Your task to perform on an android device: manage bookmarks in the chrome app Image 0: 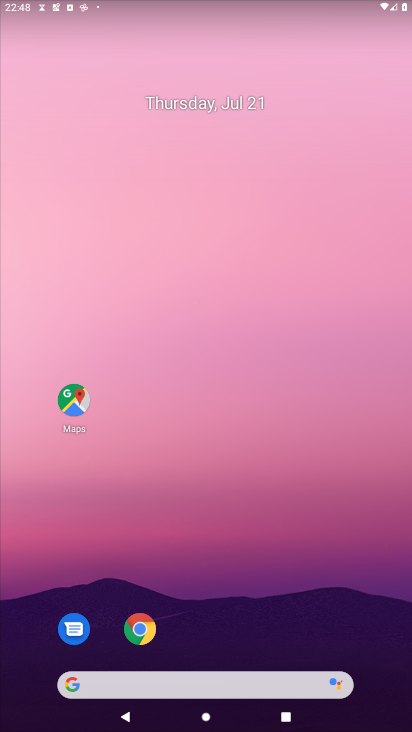
Step 0: drag from (246, 646) to (256, 100)
Your task to perform on an android device: manage bookmarks in the chrome app Image 1: 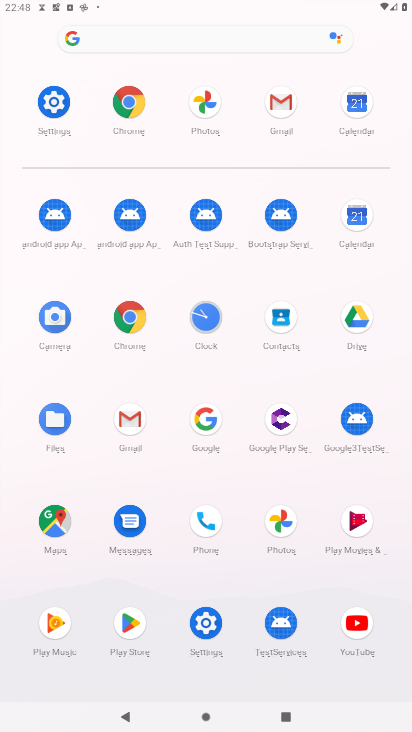
Step 1: click (132, 324)
Your task to perform on an android device: manage bookmarks in the chrome app Image 2: 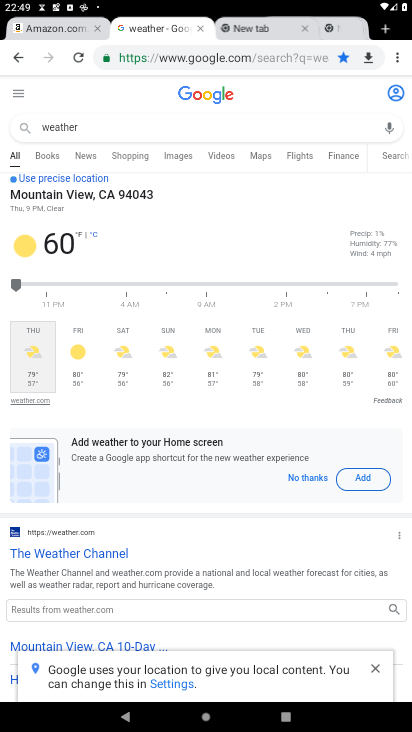
Step 2: click (398, 57)
Your task to perform on an android device: manage bookmarks in the chrome app Image 3: 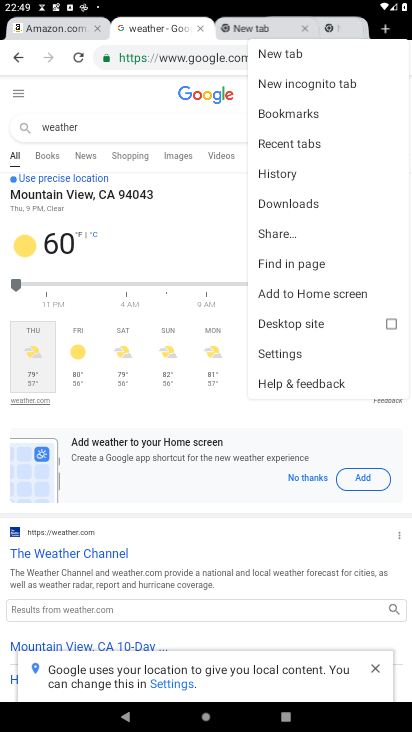
Step 3: click (317, 118)
Your task to perform on an android device: manage bookmarks in the chrome app Image 4: 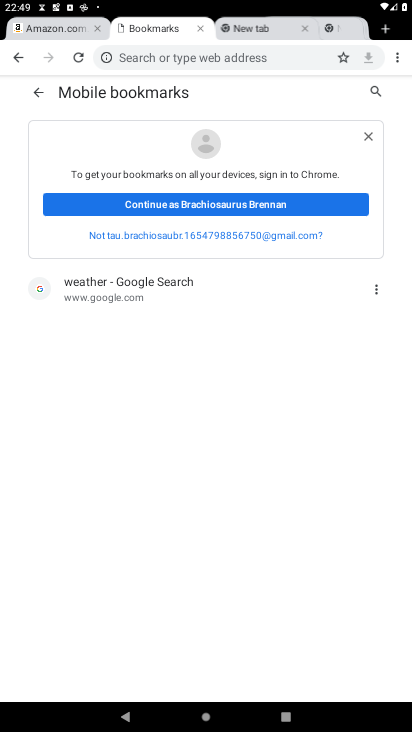
Step 4: click (259, 207)
Your task to perform on an android device: manage bookmarks in the chrome app Image 5: 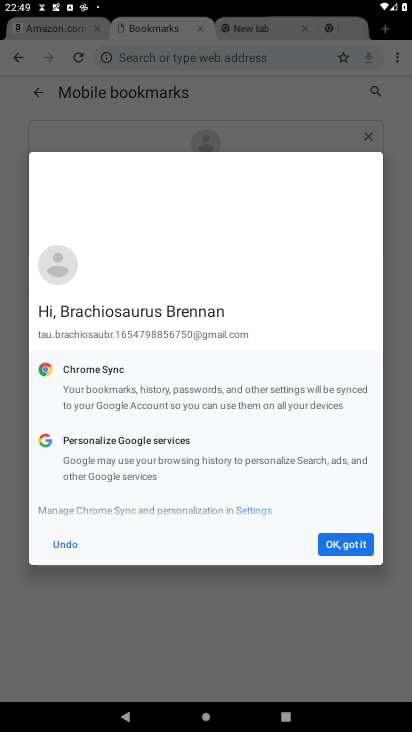
Step 5: click (358, 553)
Your task to perform on an android device: manage bookmarks in the chrome app Image 6: 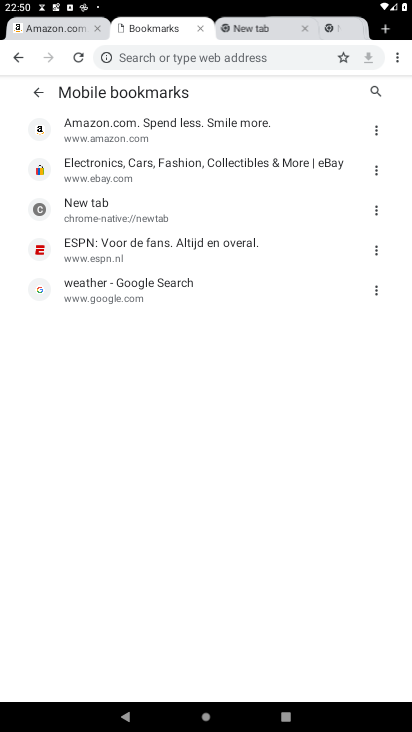
Step 6: click (378, 137)
Your task to perform on an android device: manage bookmarks in the chrome app Image 7: 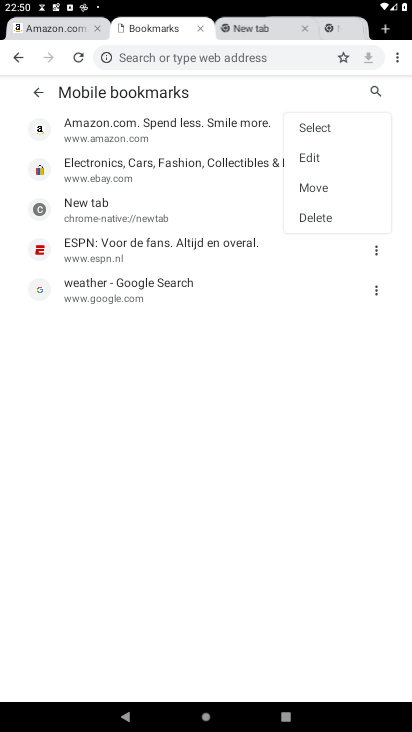
Step 7: click (326, 188)
Your task to perform on an android device: manage bookmarks in the chrome app Image 8: 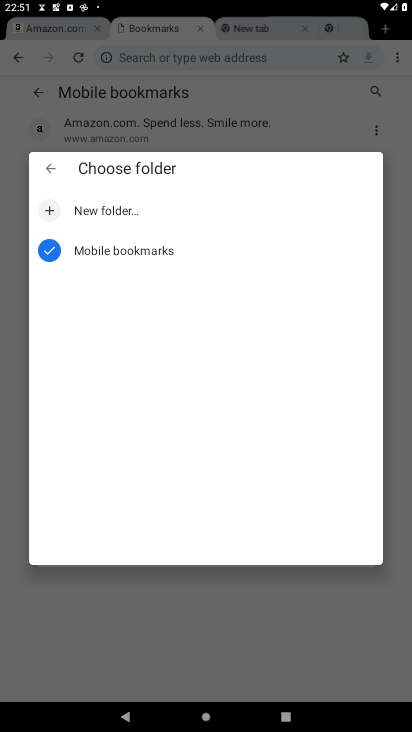
Step 8: click (148, 264)
Your task to perform on an android device: manage bookmarks in the chrome app Image 9: 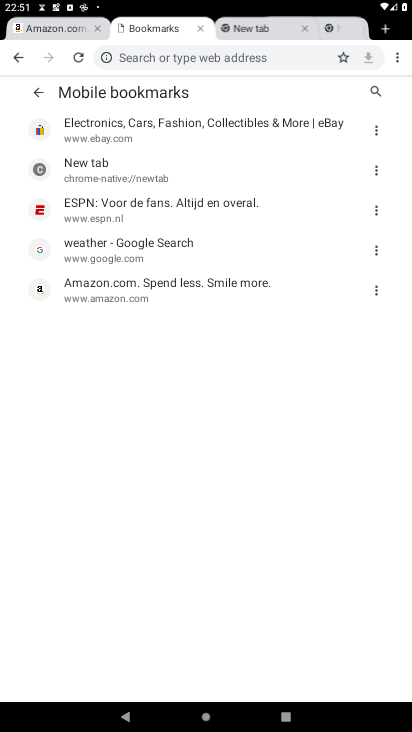
Step 9: task complete